Your task to perform on an android device: turn off airplane mode Image 0: 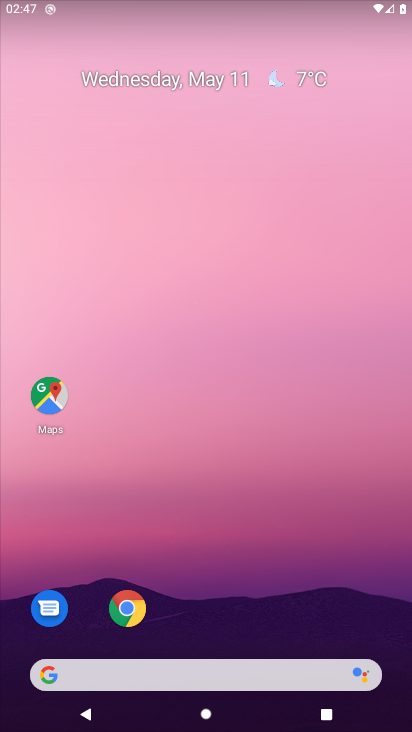
Step 0: drag from (288, 6) to (279, 546)
Your task to perform on an android device: turn off airplane mode Image 1: 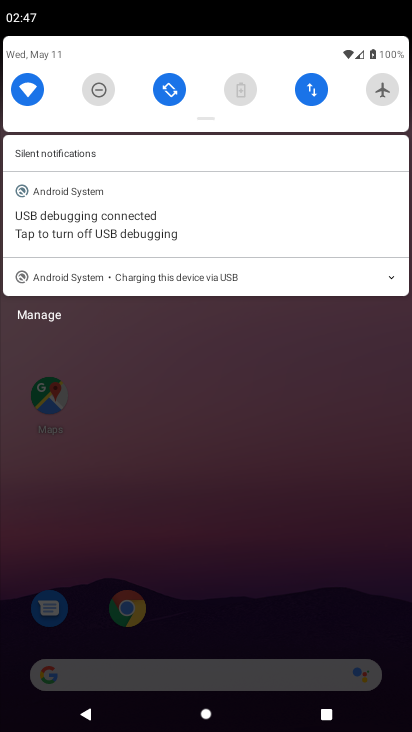
Step 1: click (179, 438)
Your task to perform on an android device: turn off airplane mode Image 2: 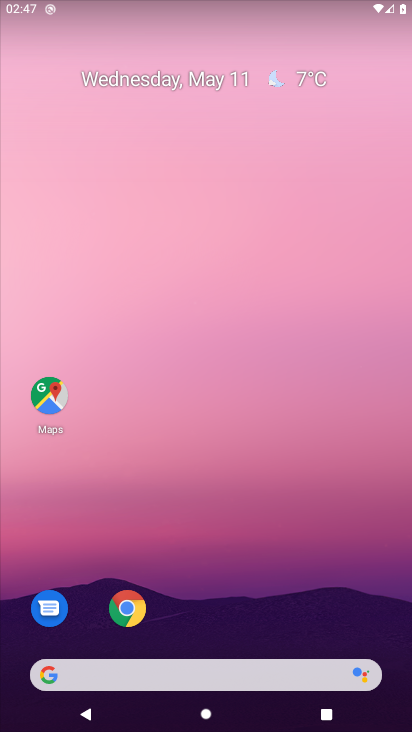
Step 2: task complete